Your task to perform on an android device: Search for sushi restaurants on Maps Image 0: 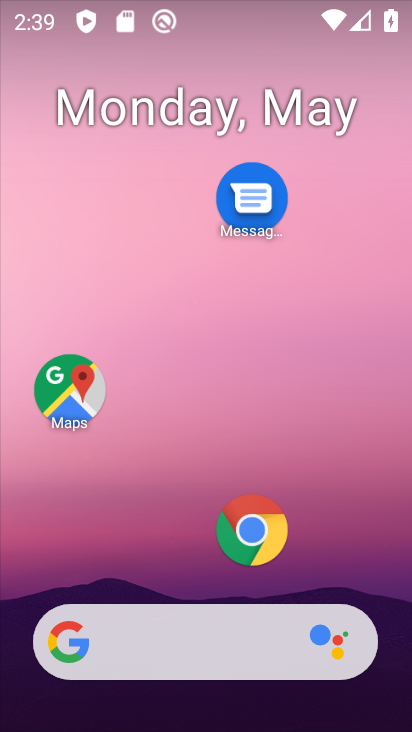
Step 0: click (61, 373)
Your task to perform on an android device: Search for sushi restaurants on Maps Image 1: 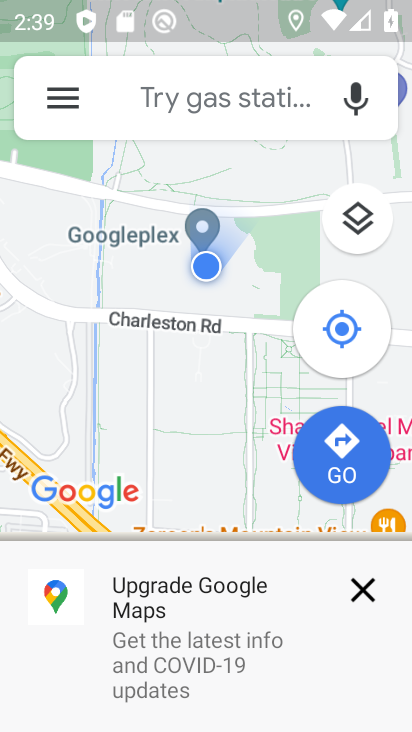
Step 1: click (148, 100)
Your task to perform on an android device: Search for sushi restaurants on Maps Image 2: 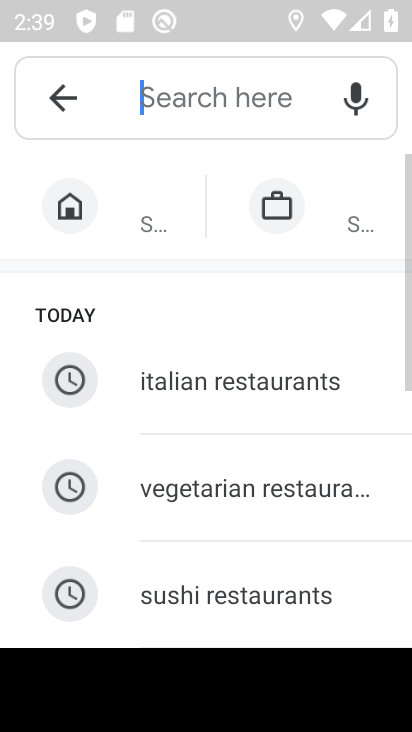
Step 2: drag from (212, 563) to (314, 74)
Your task to perform on an android device: Search for sushi restaurants on Maps Image 3: 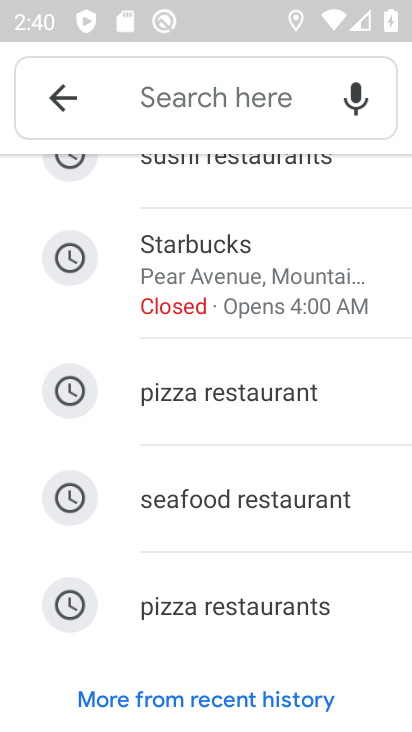
Step 3: click (258, 179)
Your task to perform on an android device: Search for sushi restaurants on Maps Image 4: 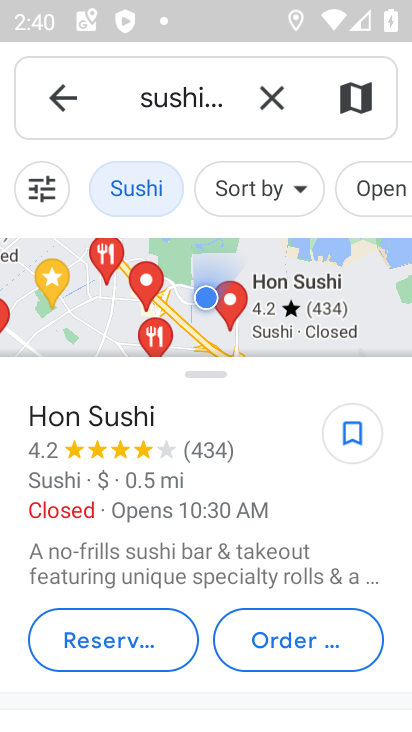
Step 4: task complete